Your task to perform on an android device: Go to privacy settings Image 0: 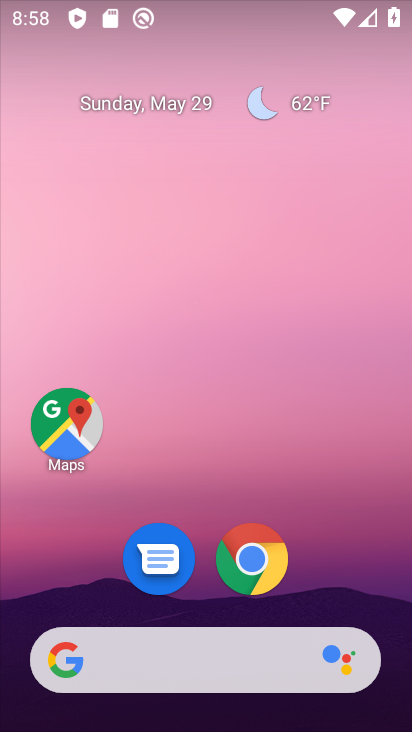
Step 0: drag from (335, 425) to (301, 193)
Your task to perform on an android device: Go to privacy settings Image 1: 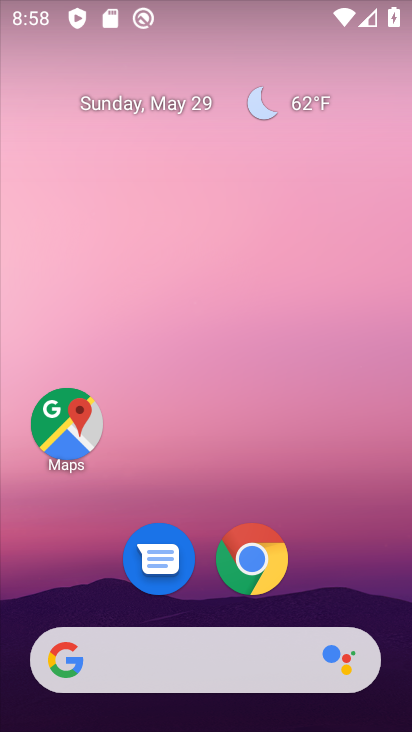
Step 1: drag from (326, 591) to (289, 185)
Your task to perform on an android device: Go to privacy settings Image 2: 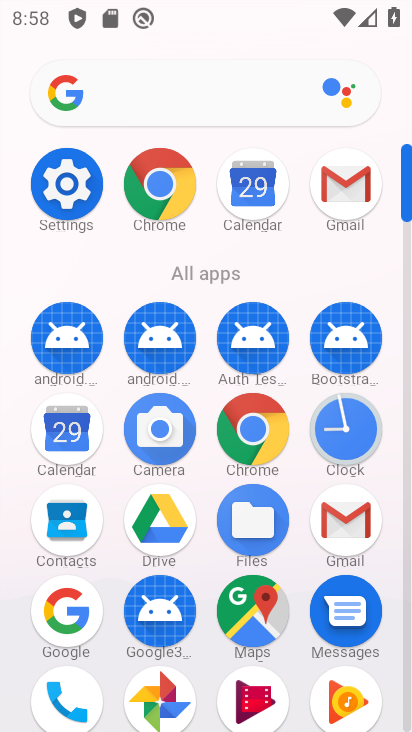
Step 2: click (64, 178)
Your task to perform on an android device: Go to privacy settings Image 3: 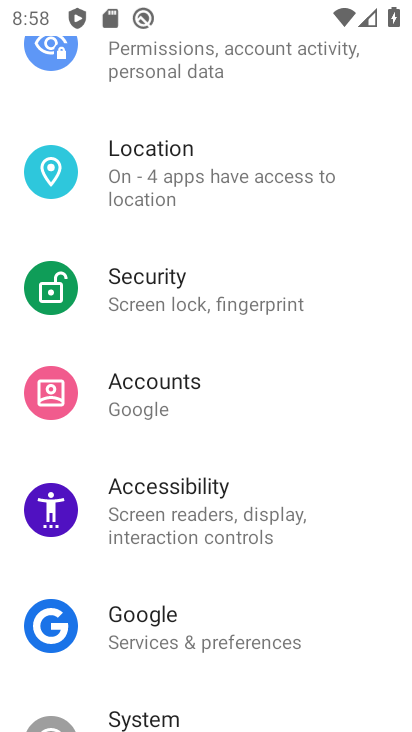
Step 3: click (233, 586)
Your task to perform on an android device: Go to privacy settings Image 4: 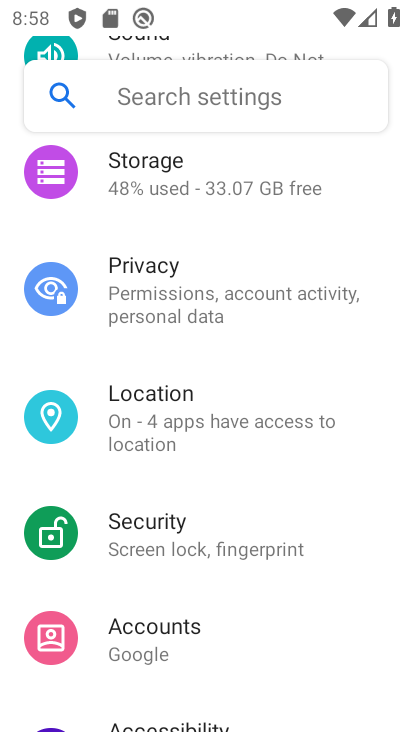
Step 4: click (197, 309)
Your task to perform on an android device: Go to privacy settings Image 5: 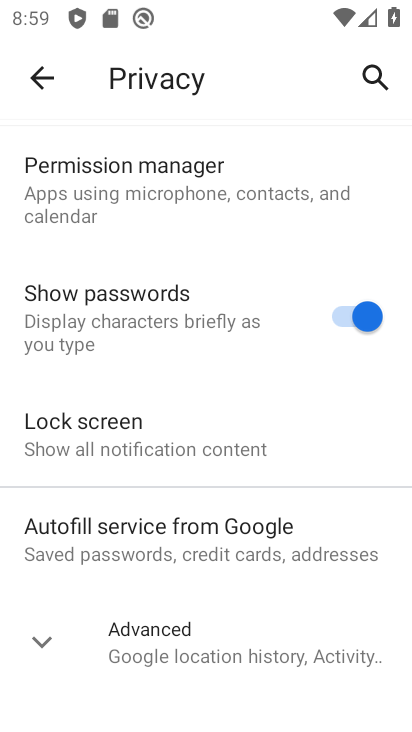
Step 5: task complete